Your task to perform on an android device: Open accessibility settings Image 0: 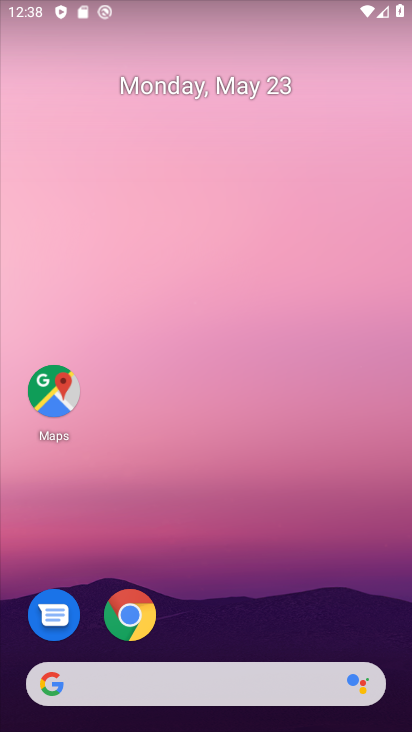
Step 0: drag from (225, 725) to (207, 160)
Your task to perform on an android device: Open accessibility settings Image 1: 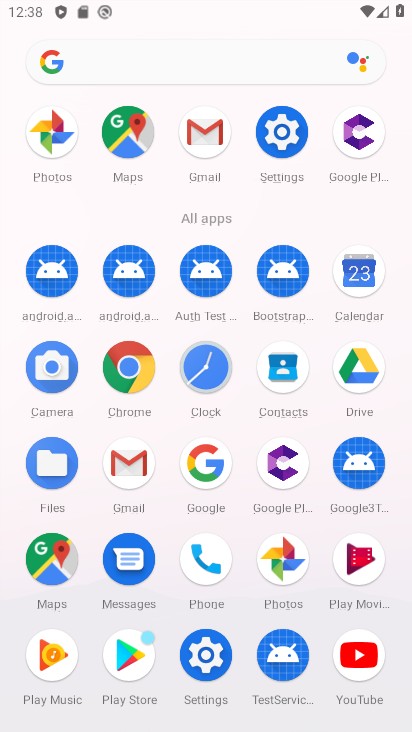
Step 1: click (278, 133)
Your task to perform on an android device: Open accessibility settings Image 2: 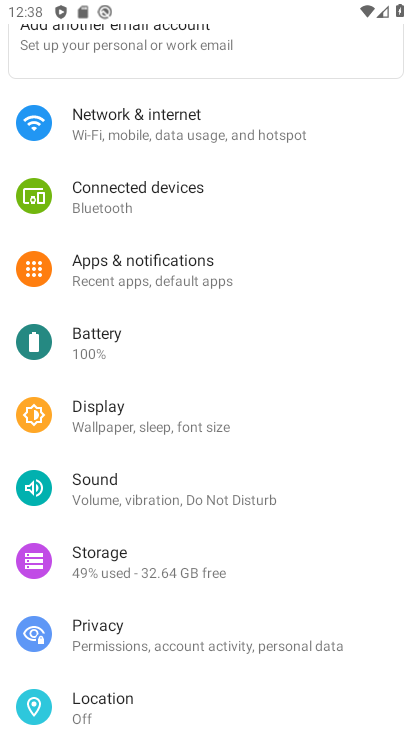
Step 2: drag from (144, 671) to (162, 121)
Your task to perform on an android device: Open accessibility settings Image 3: 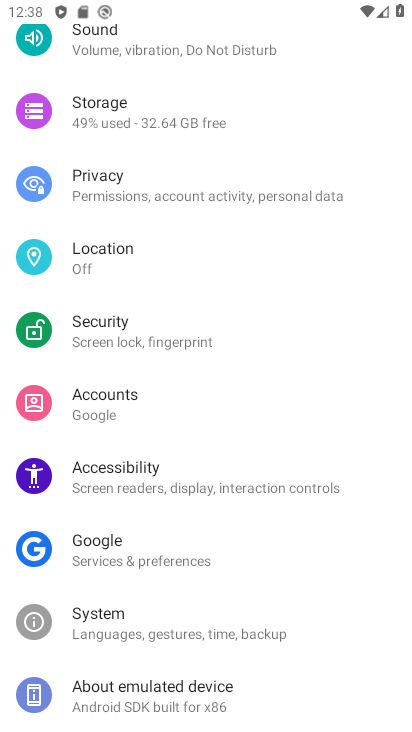
Step 3: click (131, 471)
Your task to perform on an android device: Open accessibility settings Image 4: 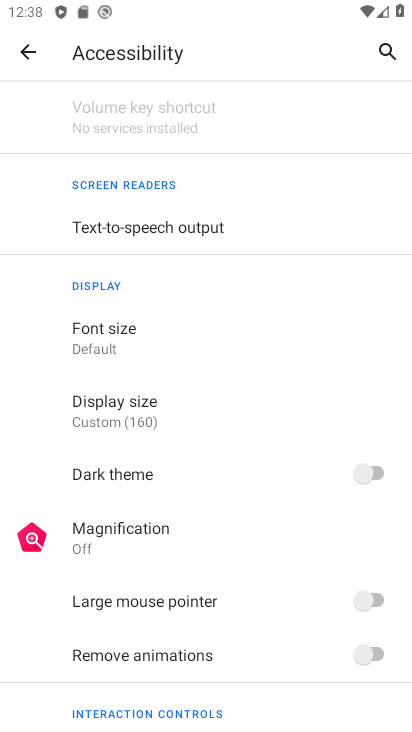
Step 4: task complete